Your task to perform on an android device: open the mobile data screen to see how much data has been used Image 0: 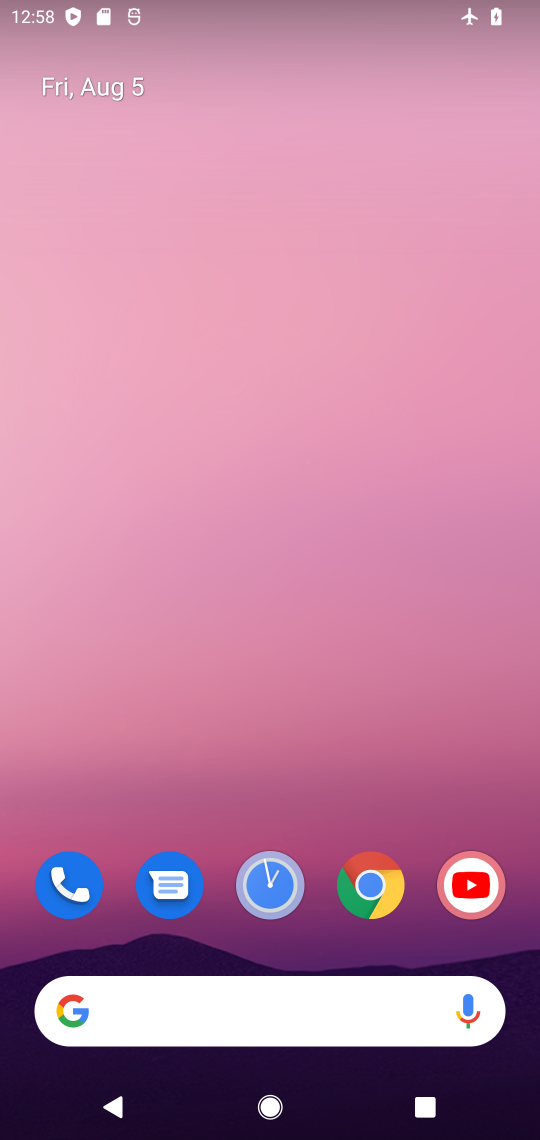
Step 0: drag from (250, 931) to (258, 192)
Your task to perform on an android device: open the mobile data screen to see how much data has been used Image 1: 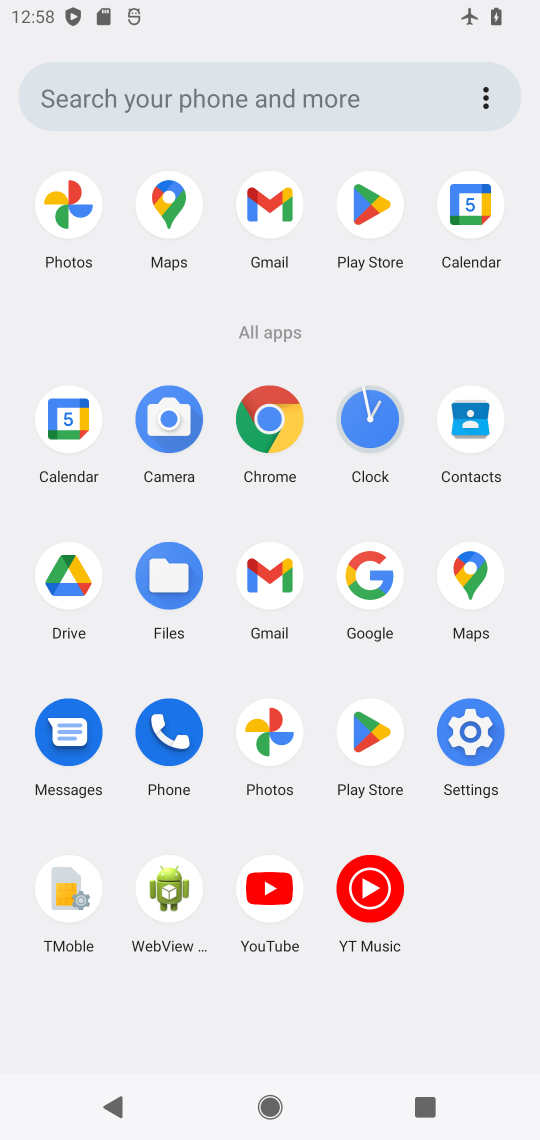
Step 1: click (478, 728)
Your task to perform on an android device: open the mobile data screen to see how much data has been used Image 2: 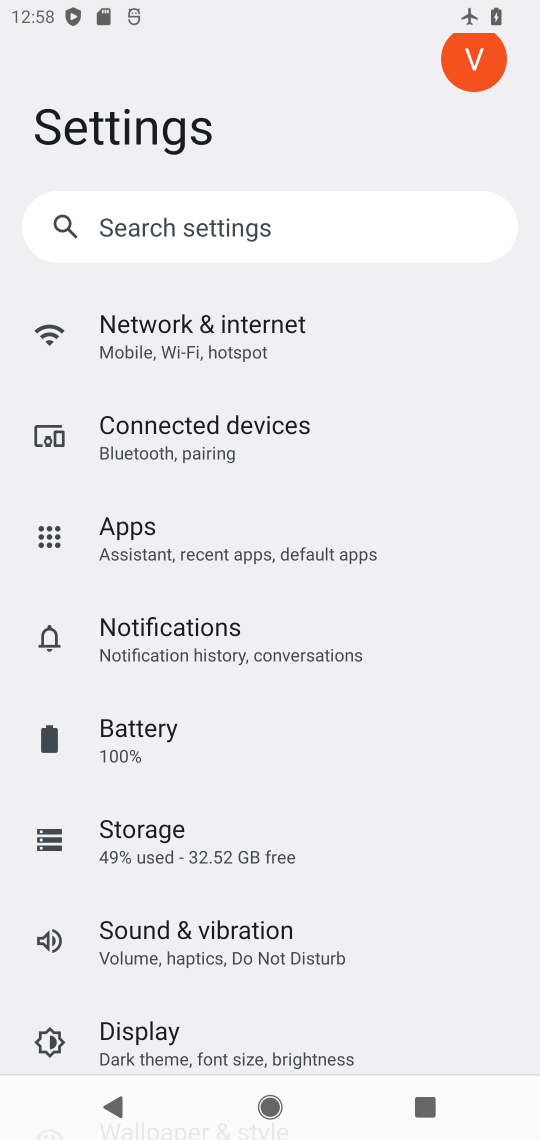
Step 2: click (212, 347)
Your task to perform on an android device: open the mobile data screen to see how much data has been used Image 3: 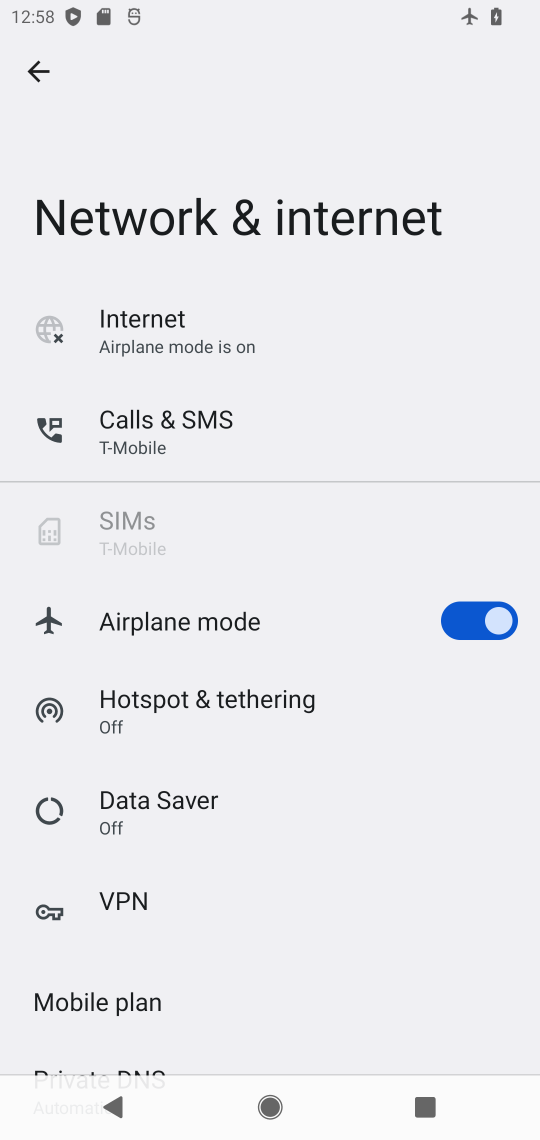
Step 3: click (196, 346)
Your task to perform on an android device: open the mobile data screen to see how much data has been used Image 4: 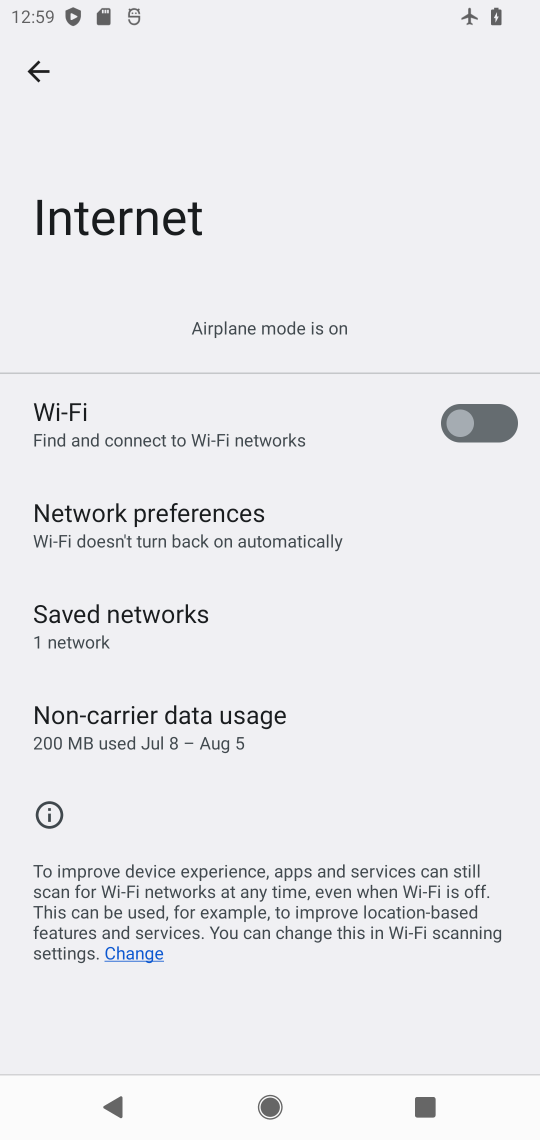
Step 4: click (127, 737)
Your task to perform on an android device: open the mobile data screen to see how much data has been used Image 5: 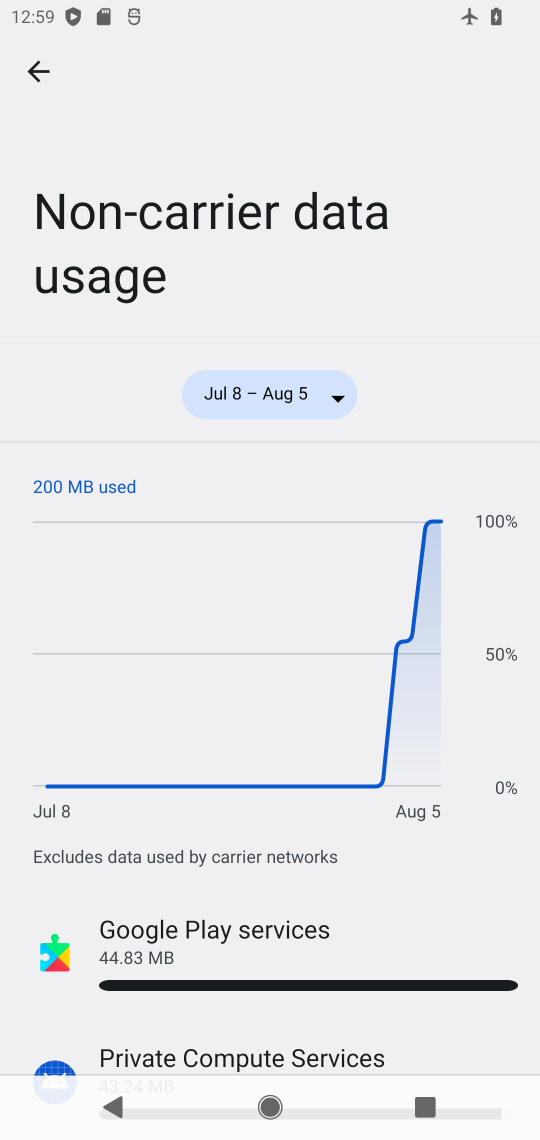
Step 5: task complete